Your task to perform on an android device: turn off javascript in the chrome app Image 0: 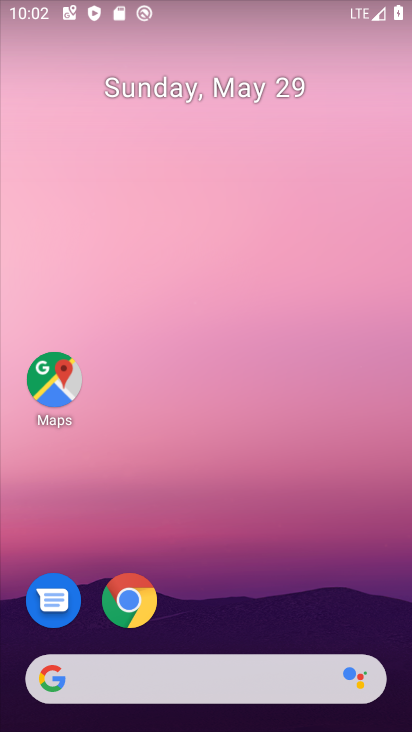
Step 0: drag from (397, 712) to (322, 0)
Your task to perform on an android device: turn off javascript in the chrome app Image 1: 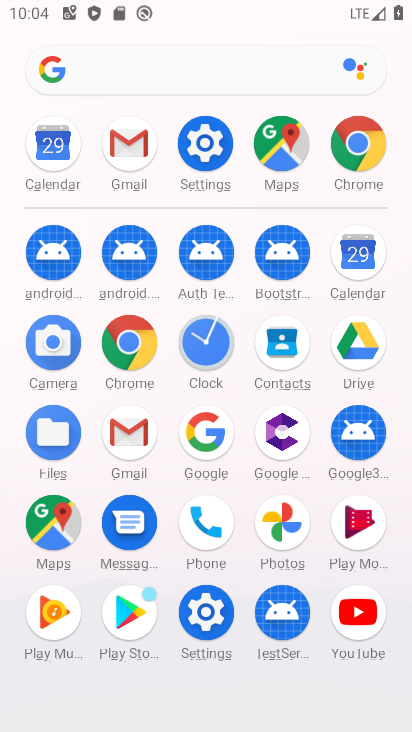
Step 1: click (209, 144)
Your task to perform on an android device: turn off javascript in the chrome app Image 2: 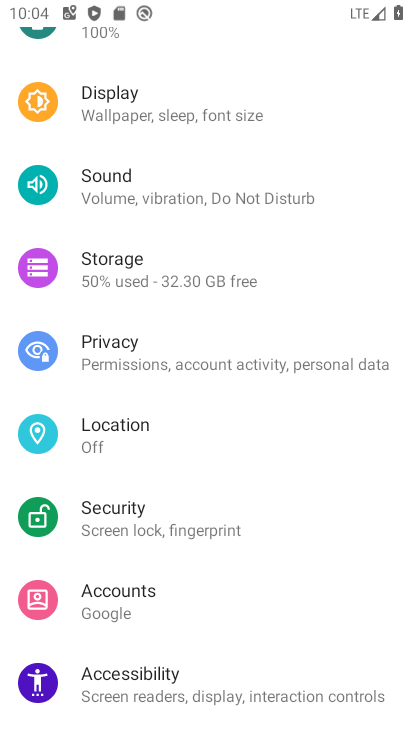
Step 2: press back button
Your task to perform on an android device: turn off javascript in the chrome app Image 3: 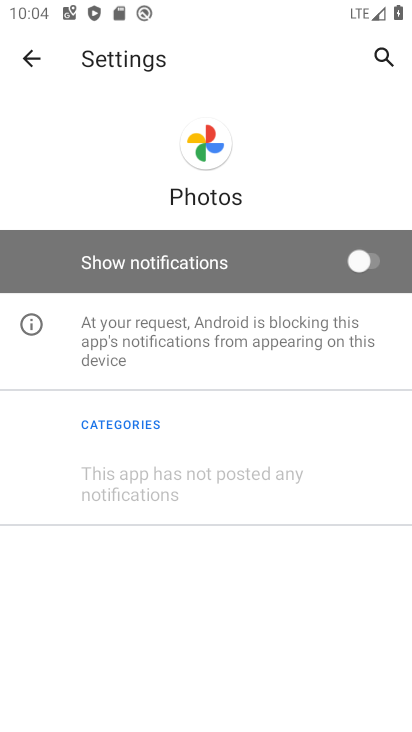
Step 3: press back button
Your task to perform on an android device: turn off javascript in the chrome app Image 4: 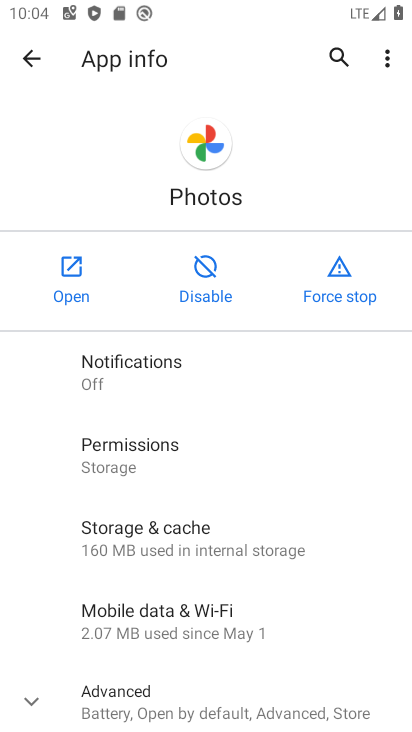
Step 4: press back button
Your task to perform on an android device: turn off javascript in the chrome app Image 5: 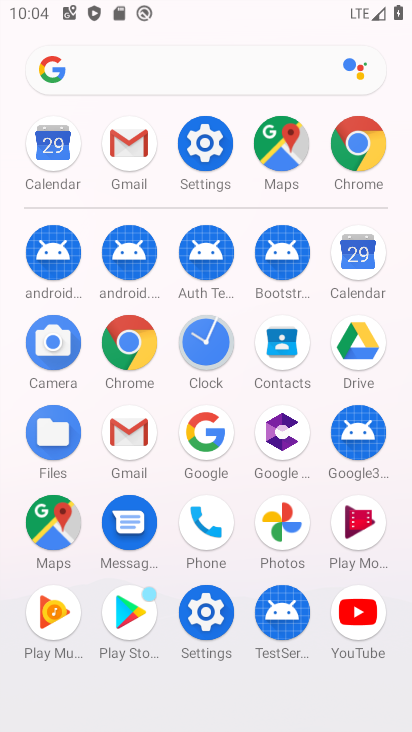
Step 5: click (359, 154)
Your task to perform on an android device: turn off javascript in the chrome app Image 6: 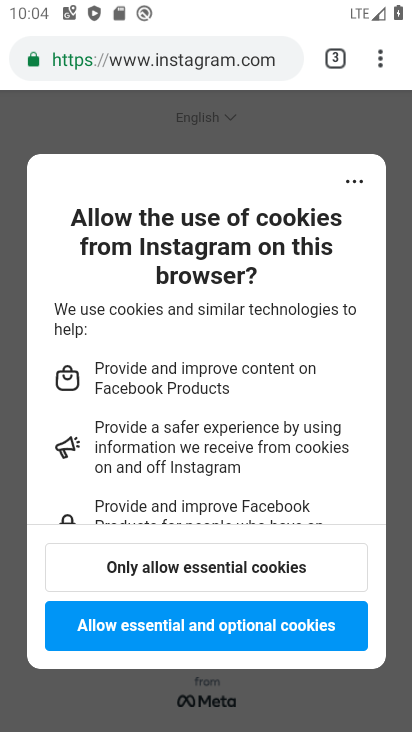
Step 6: drag from (383, 55) to (231, 621)
Your task to perform on an android device: turn off javascript in the chrome app Image 7: 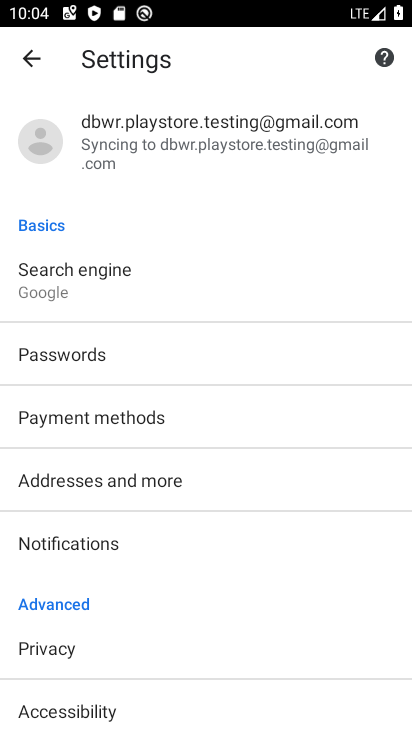
Step 7: drag from (231, 621) to (107, 90)
Your task to perform on an android device: turn off javascript in the chrome app Image 8: 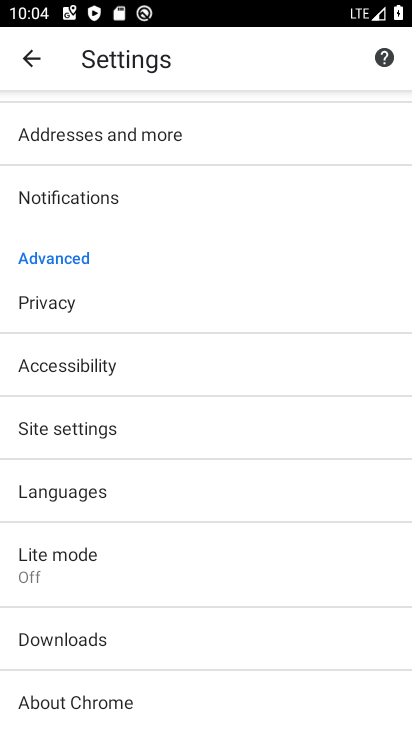
Step 8: click (115, 437)
Your task to perform on an android device: turn off javascript in the chrome app Image 9: 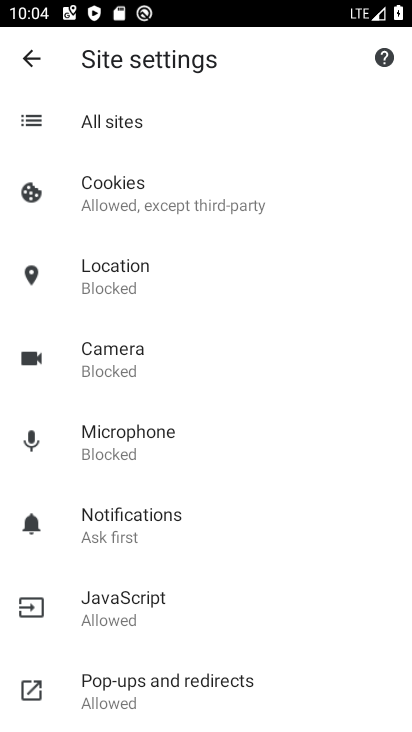
Step 9: click (145, 594)
Your task to perform on an android device: turn off javascript in the chrome app Image 10: 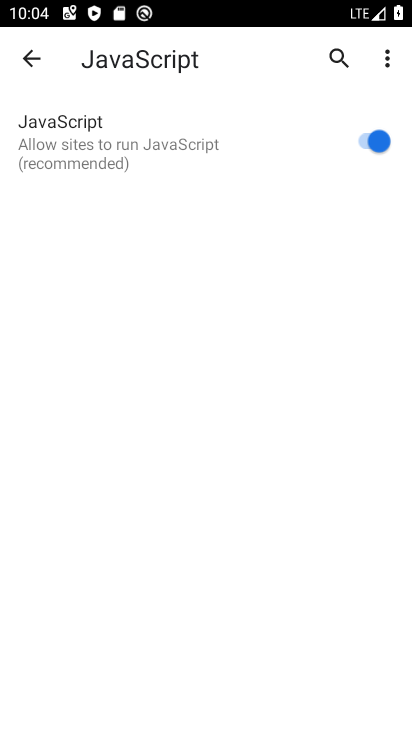
Step 10: click (223, 161)
Your task to perform on an android device: turn off javascript in the chrome app Image 11: 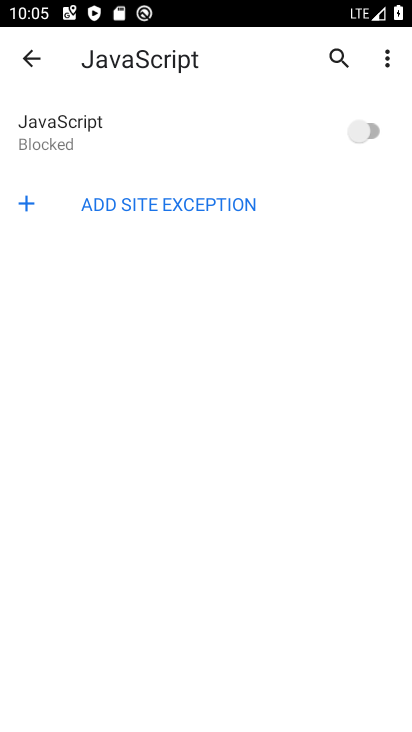
Step 11: task complete